Your task to perform on an android device: Open location settings Image 0: 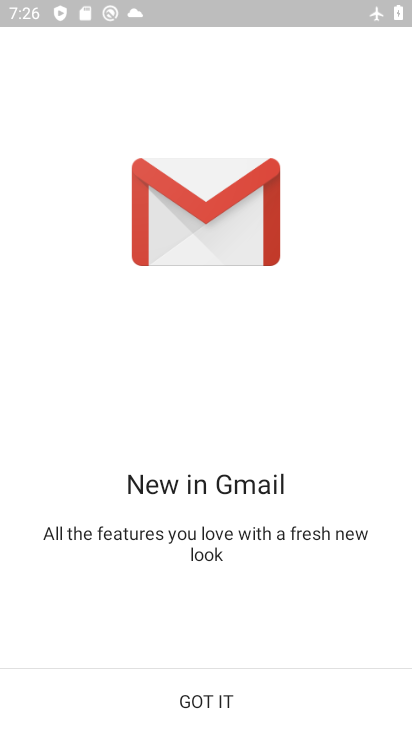
Step 0: press home button
Your task to perform on an android device: Open location settings Image 1: 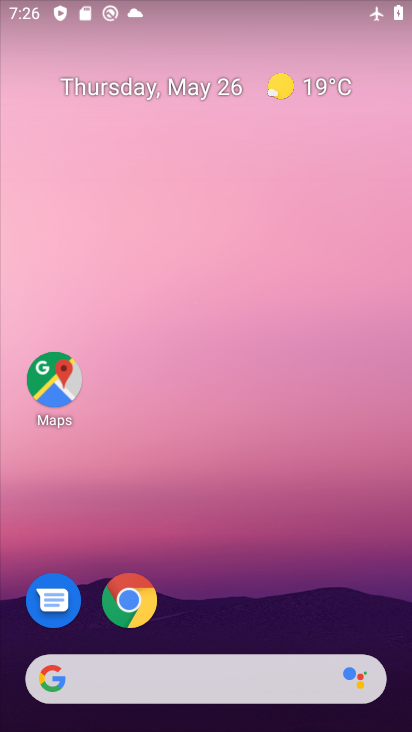
Step 1: drag from (285, 634) to (288, 116)
Your task to perform on an android device: Open location settings Image 2: 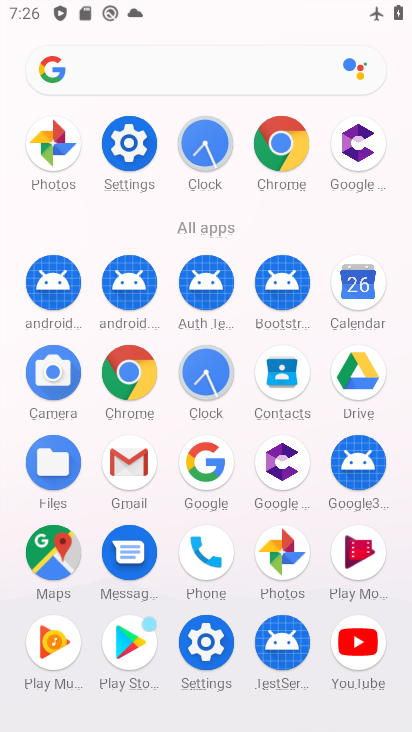
Step 2: click (199, 647)
Your task to perform on an android device: Open location settings Image 3: 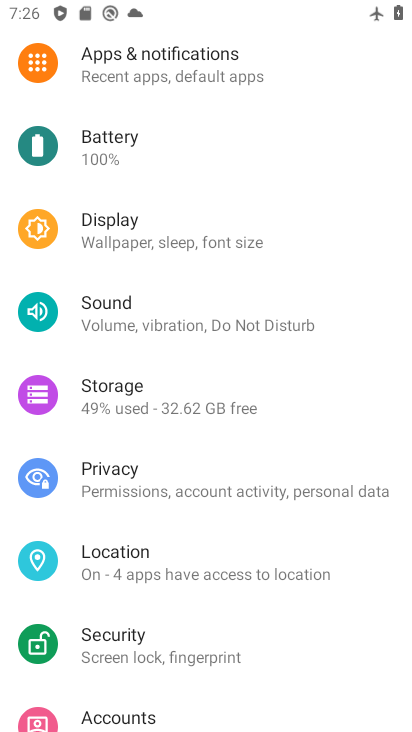
Step 3: click (116, 554)
Your task to perform on an android device: Open location settings Image 4: 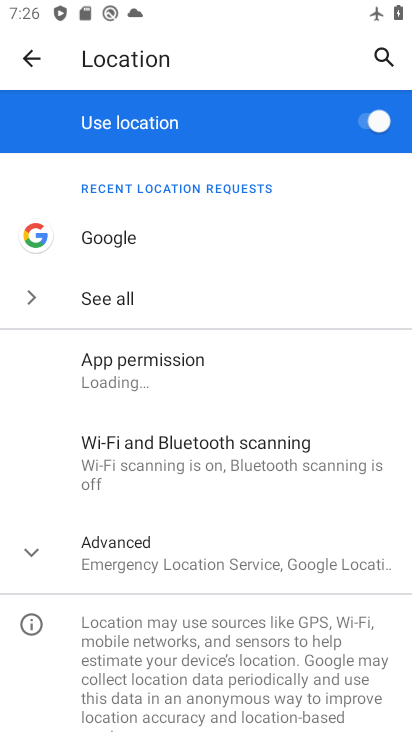
Step 4: task complete